Your task to perform on an android device: Turn on the flashlight Image 0: 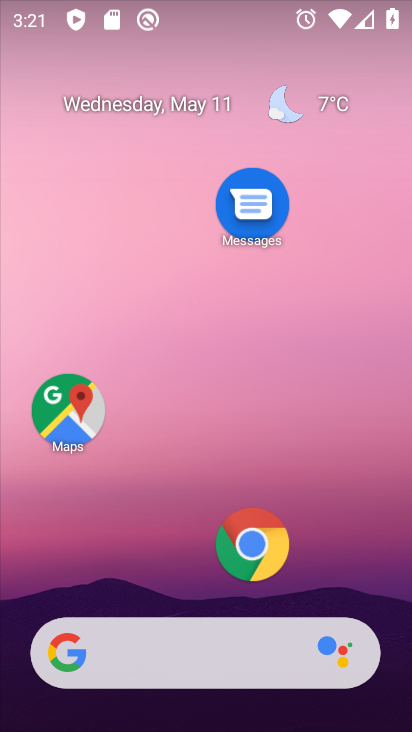
Step 0: drag from (153, 560) to (243, 62)
Your task to perform on an android device: Turn on the flashlight Image 1: 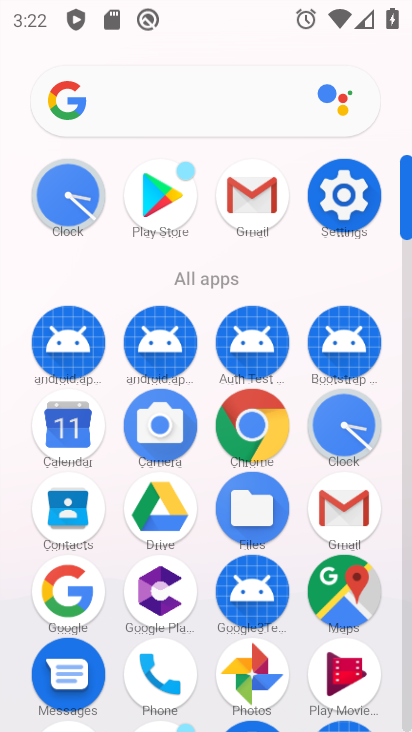
Step 1: click (343, 193)
Your task to perform on an android device: Turn on the flashlight Image 2: 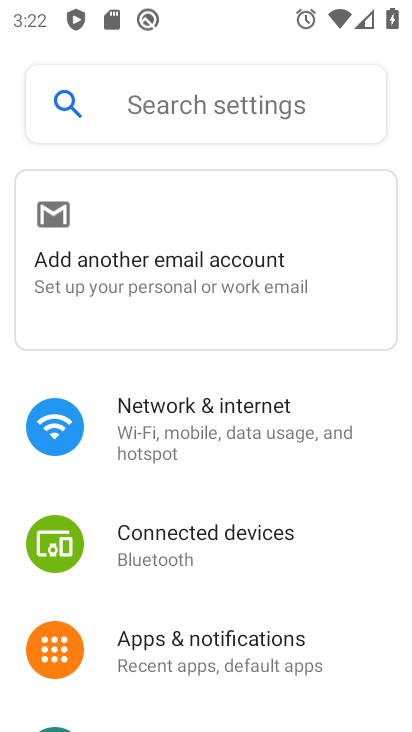
Step 2: click (187, 98)
Your task to perform on an android device: Turn on the flashlight Image 3: 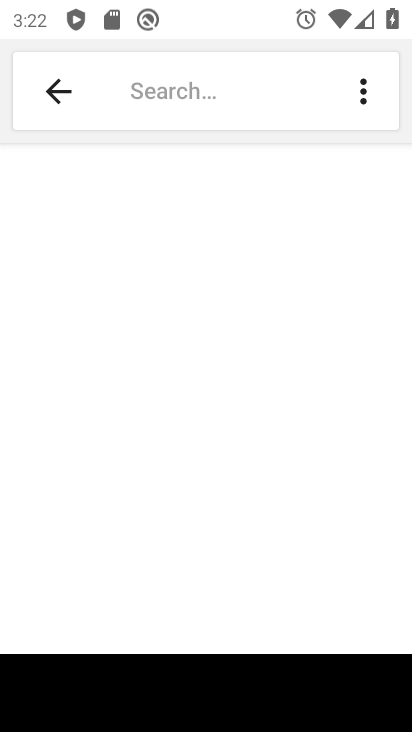
Step 3: type "flashlight"
Your task to perform on an android device: Turn on the flashlight Image 4: 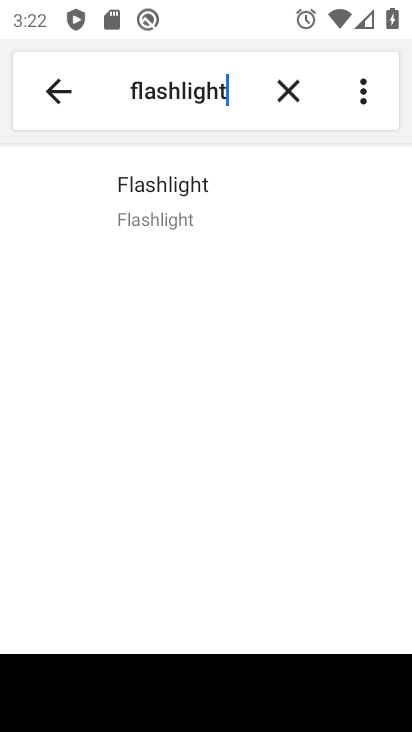
Step 4: click (182, 184)
Your task to perform on an android device: Turn on the flashlight Image 5: 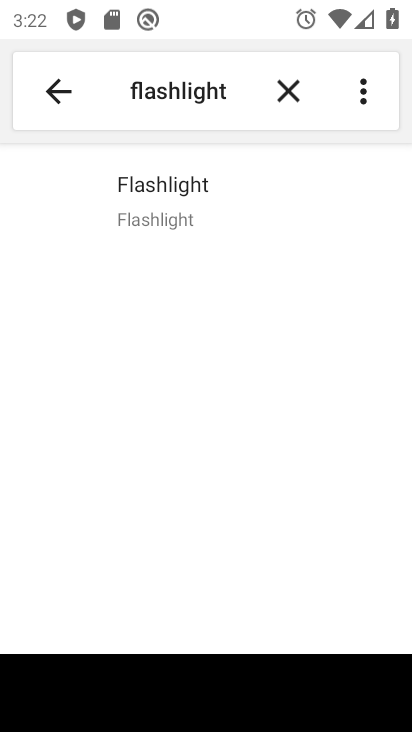
Step 5: task complete